Your task to perform on an android device: turn off notifications settings in the gmail app Image 0: 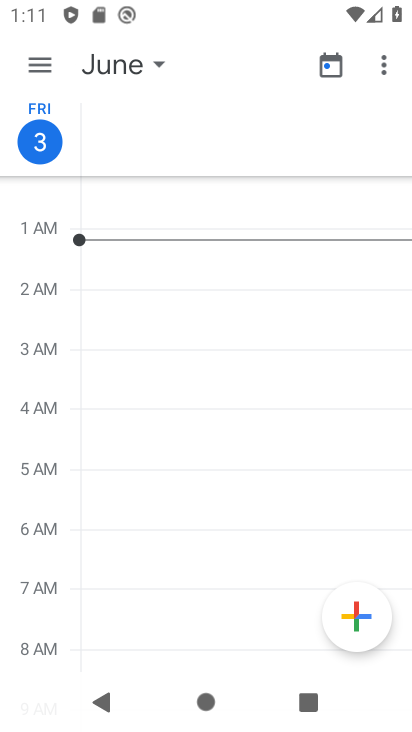
Step 0: press home button
Your task to perform on an android device: turn off notifications settings in the gmail app Image 1: 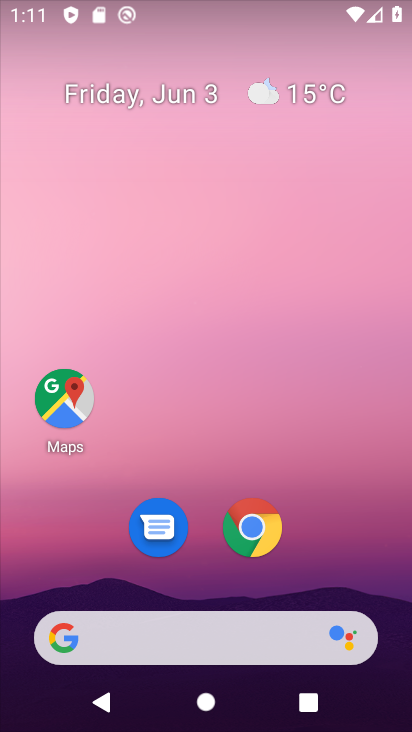
Step 1: drag from (332, 478) to (351, 153)
Your task to perform on an android device: turn off notifications settings in the gmail app Image 2: 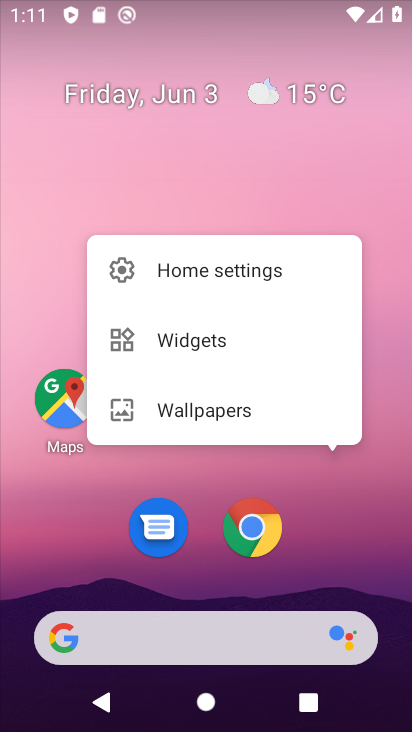
Step 2: drag from (365, 499) to (383, 182)
Your task to perform on an android device: turn off notifications settings in the gmail app Image 3: 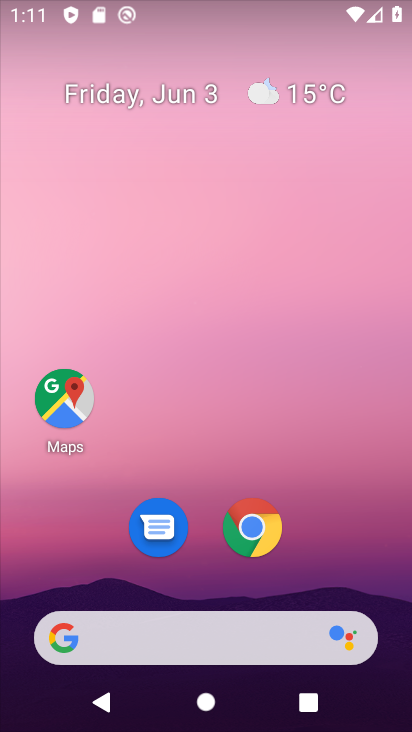
Step 3: drag from (338, 496) to (331, 80)
Your task to perform on an android device: turn off notifications settings in the gmail app Image 4: 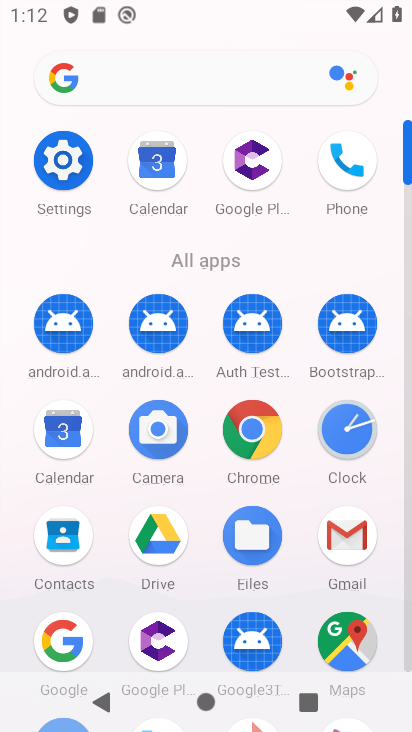
Step 4: click (332, 527)
Your task to perform on an android device: turn off notifications settings in the gmail app Image 5: 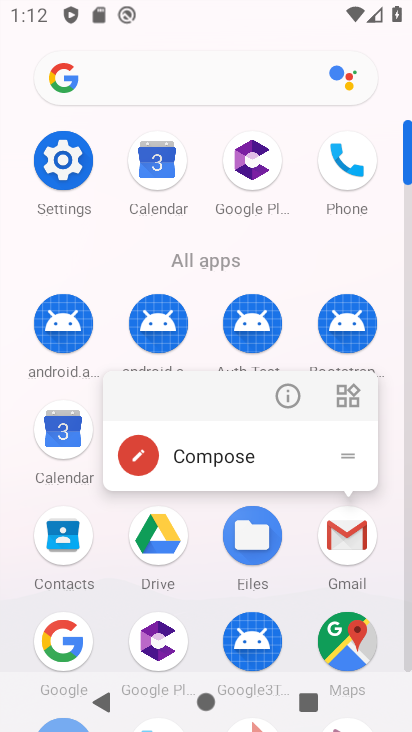
Step 5: click (289, 390)
Your task to perform on an android device: turn off notifications settings in the gmail app Image 6: 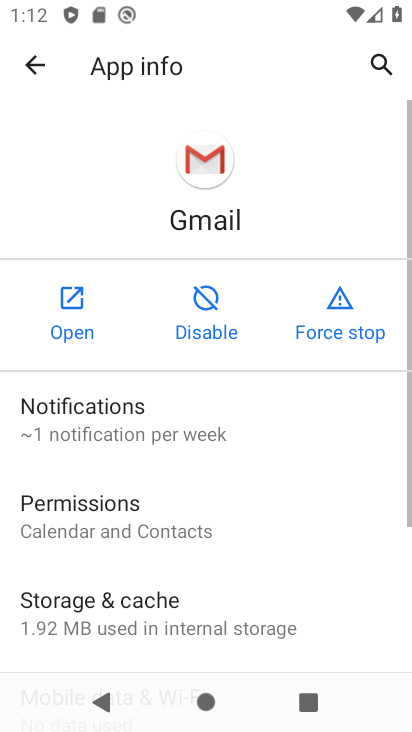
Step 6: click (137, 400)
Your task to perform on an android device: turn off notifications settings in the gmail app Image 7: 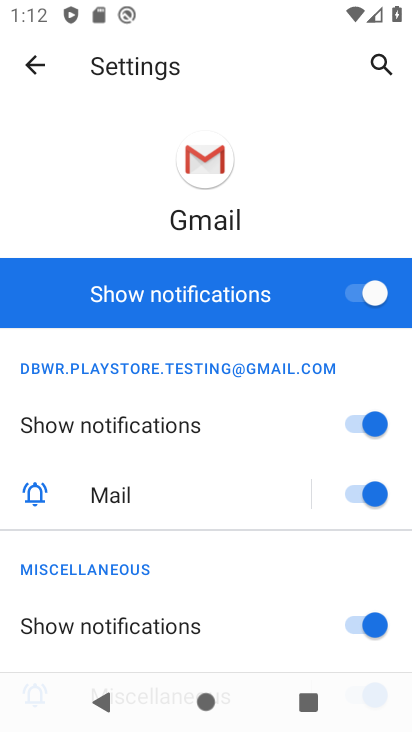
Step 7: click (378, 295)
Your task to perform on an android device: turn off notifications settings in the gmail app Image 8: 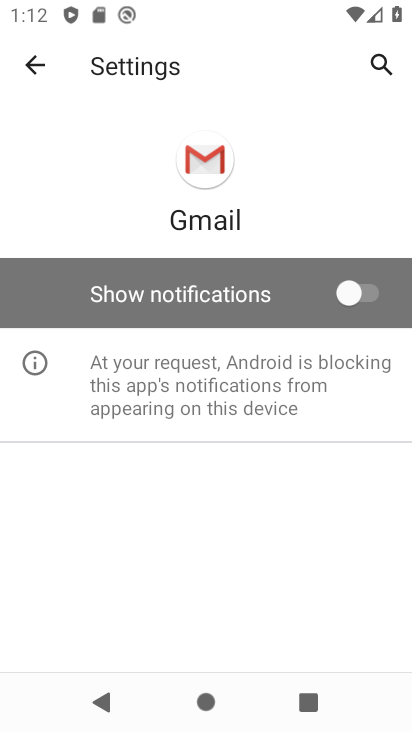
Step 8: task complete